Your task to perform on an android device: Open Android settings Image 0: 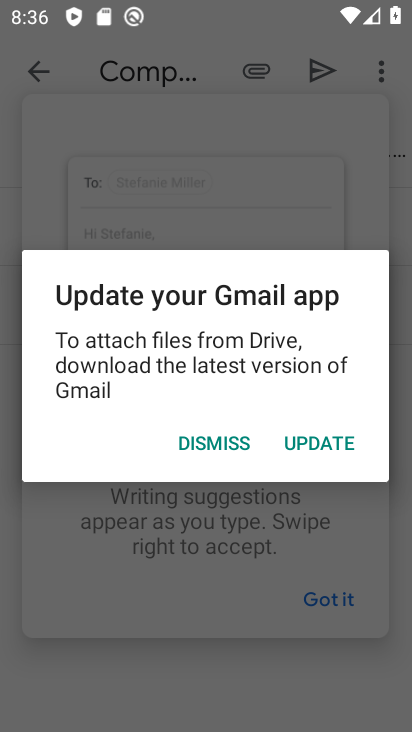
Step 0: press home button
Your task to perform on an android device: Open Android settings Image 1: 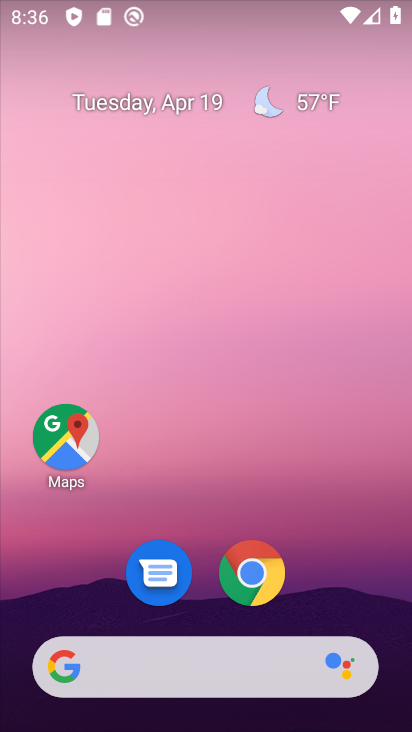
Step 1: drag from (320, 548) to (334, 125)
Your task to perform on an android device: Open Android settings Image 2: 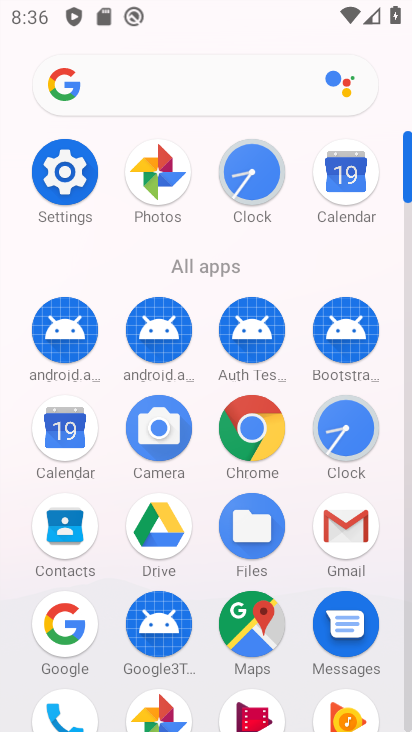
Step 2: click (53, 170)
Your task to perform on an android device: Open Android settings Image 3: 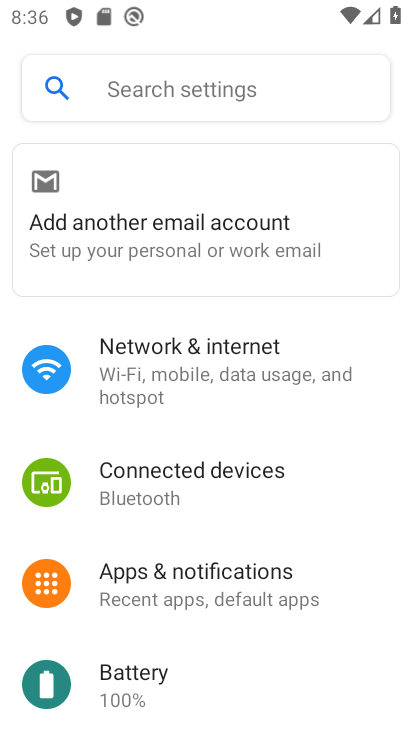
Step 3: drag from (335, 433) to (340, 86)
Your task to perform on an android device: Open Android settings Image 4: 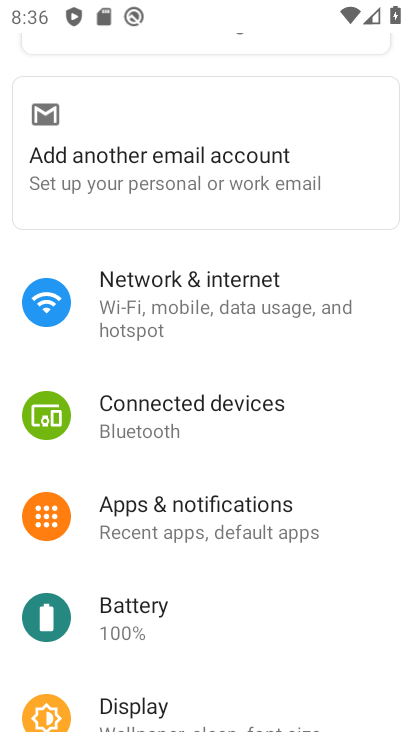
Step 4: drag from (218, 577) to (252, 125)
Your task to perform on an android device: Open Android settings Image 5: 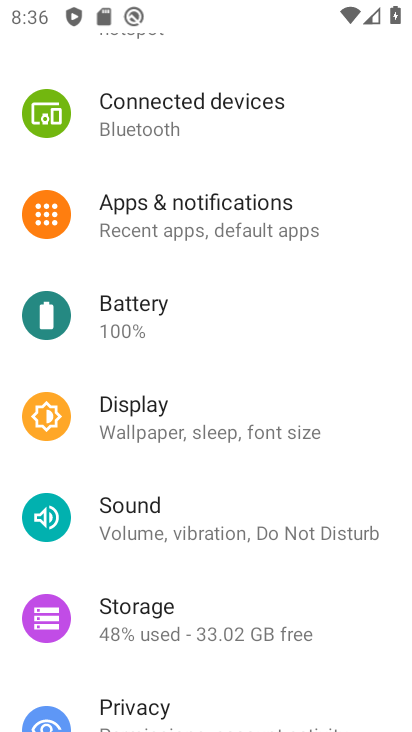
Step 5: drag from (220, 617) to (266, 112)
Your task to perform on an android device: Open Android settings Image 6: 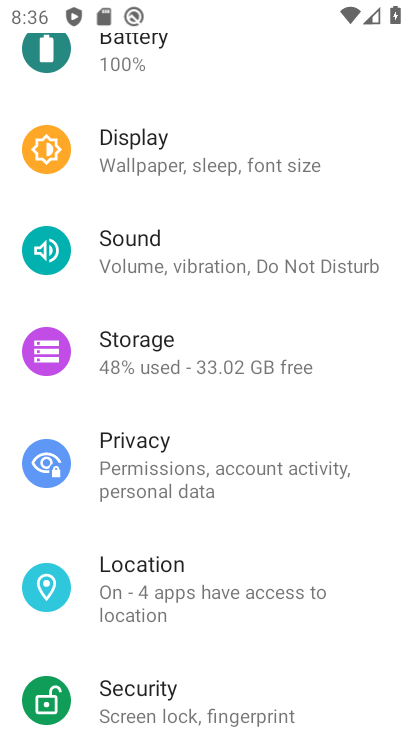
Step 6: drag from (261, 627) to (287, 78)
Your task to perform on an android device: Open Android settings Image 7: 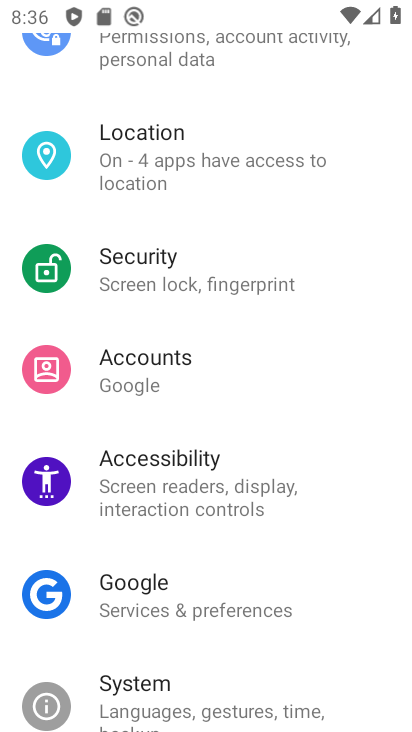
Step 7: drag from (192, 675) to (214, 190)
Your task to perform on an android device: Open Android settings Image 8: 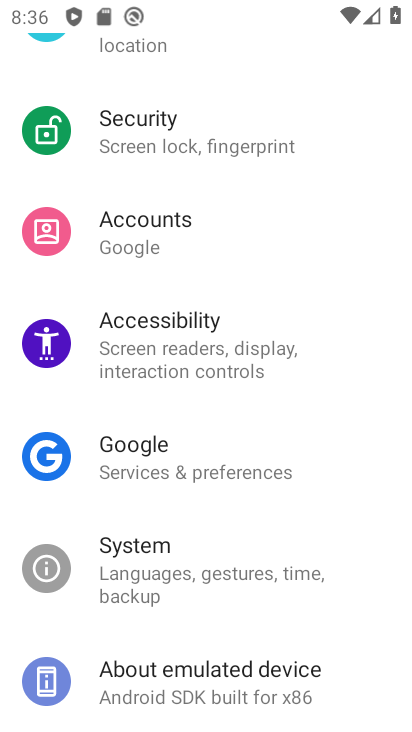
Step 8: click (171, 674)
Your task to perform on an android device: Open Android settings Image 9: 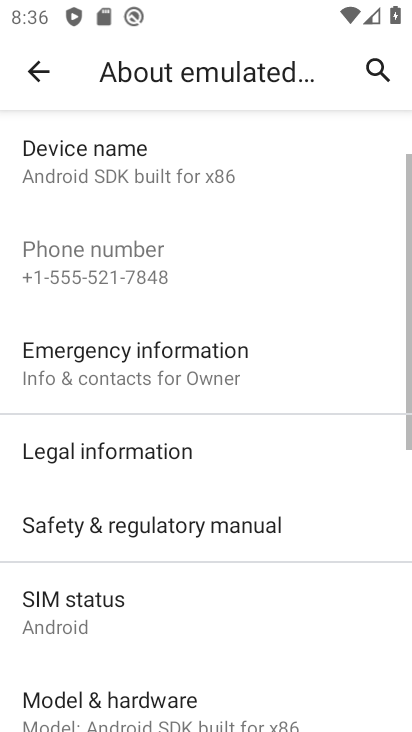
Step 9: drag from (292, 585) to (315, 143)
Your task to perform on an android device: Open Android settings Image 10: 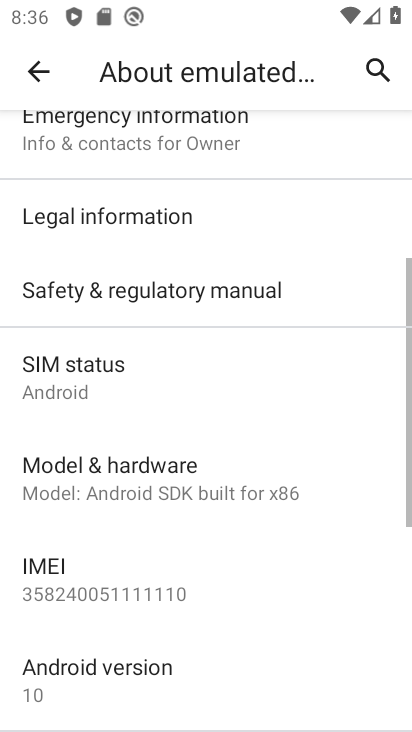
Step 10: click (114, 667)
Your task to perform on an android device: Open Android settings Image 11: 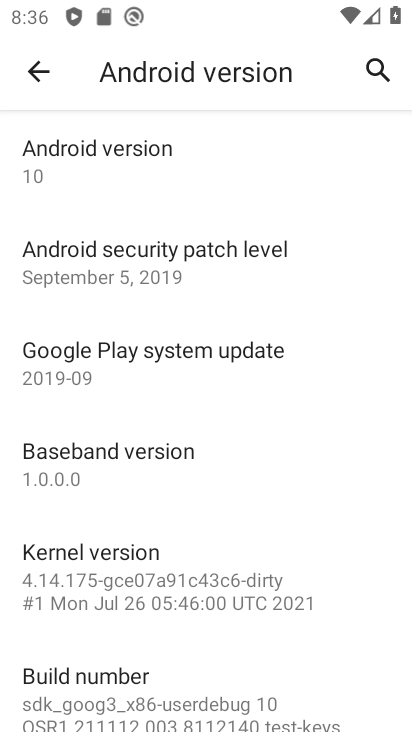
Step 11: task complete